Your task to perform on an android device: Go to display settings Image 0: 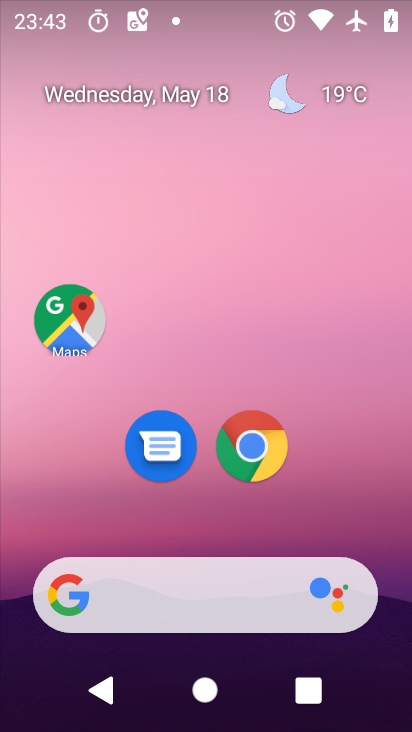
Step 0: drag from (169, 502) to (261, 87)
Your task to perform on an android device: Go to display settings Image 1: 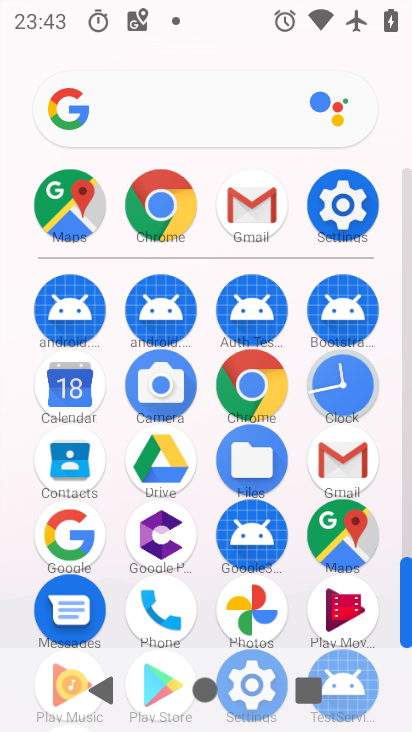
Step 1: click (358, 215)
Your task to perform on an android device: Go to display settings Image 2: 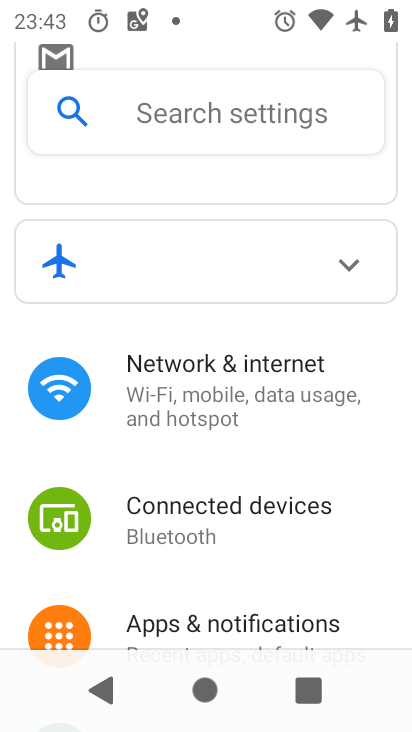
Step 2: drag from (179, 605) to (304, 108)
Your task to perform on an android device: Go to display settings Image 3: 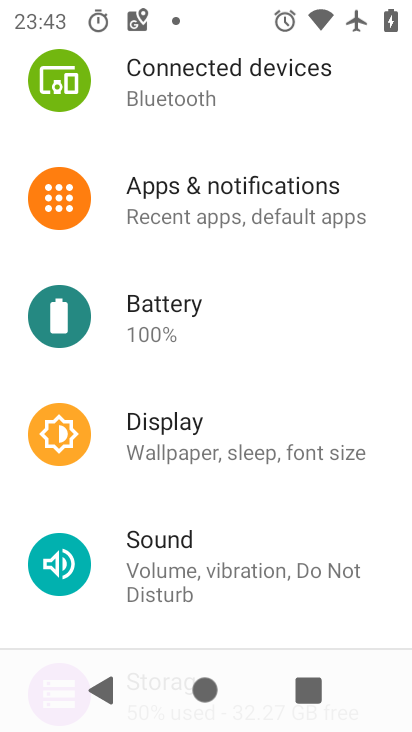
Step 3: click (174, 442)
Your task to perform on an android device: Go to display settings Image 4: 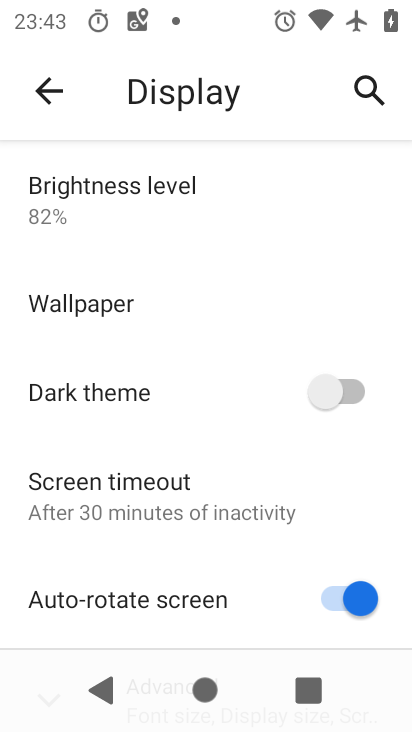
Step 4: task complete